Your task to perform on an android device: change the clock display to analog Image 0: 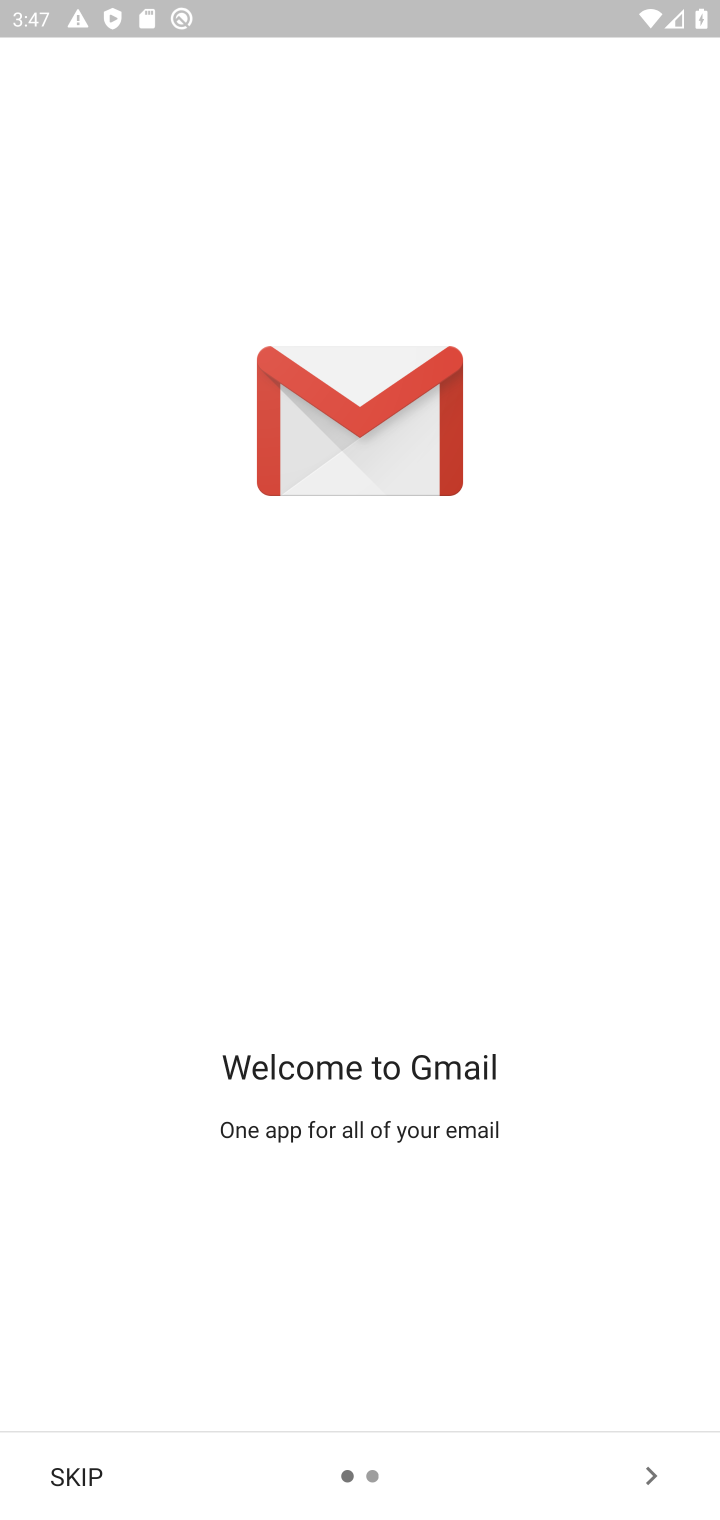
Step 0: press home button
Your task to perform on an android device: change the clock display to analog Image 1: 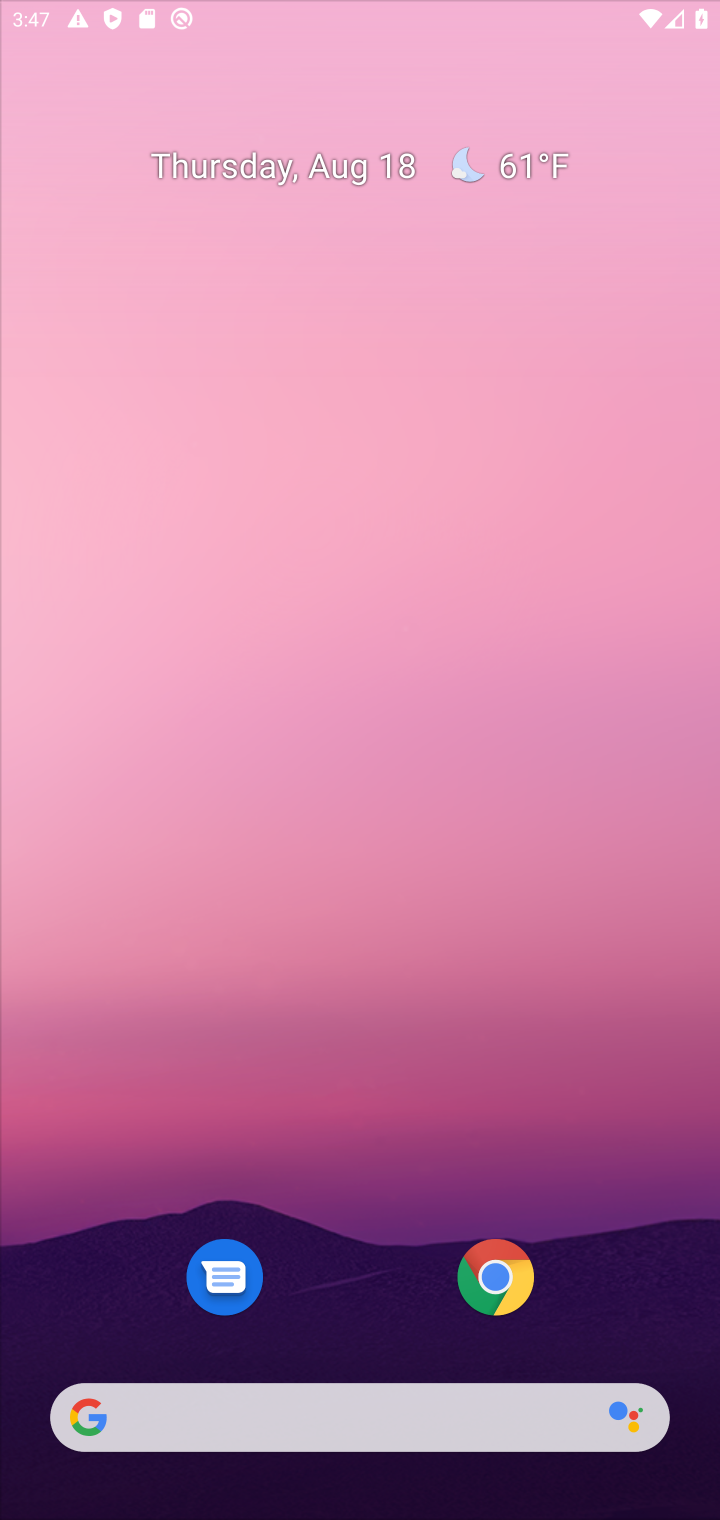
Step 1: task complete